Your task to perform on an android device: What's on my calendar tomorrow? Image 0: 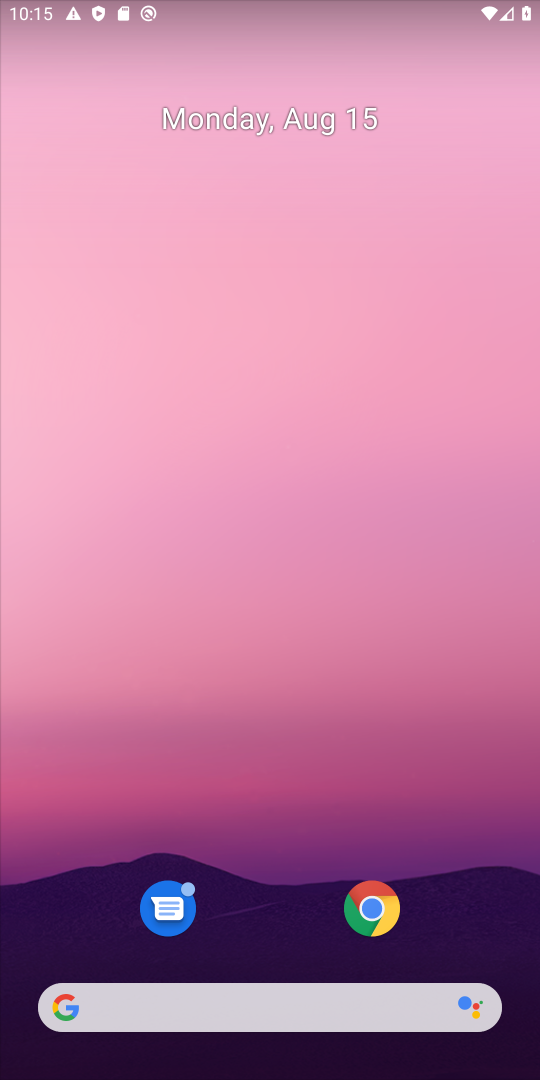
Step 0: click (244, 109)
Your task to perform on an android device: What's on my calendar tomorrow? Image 1: 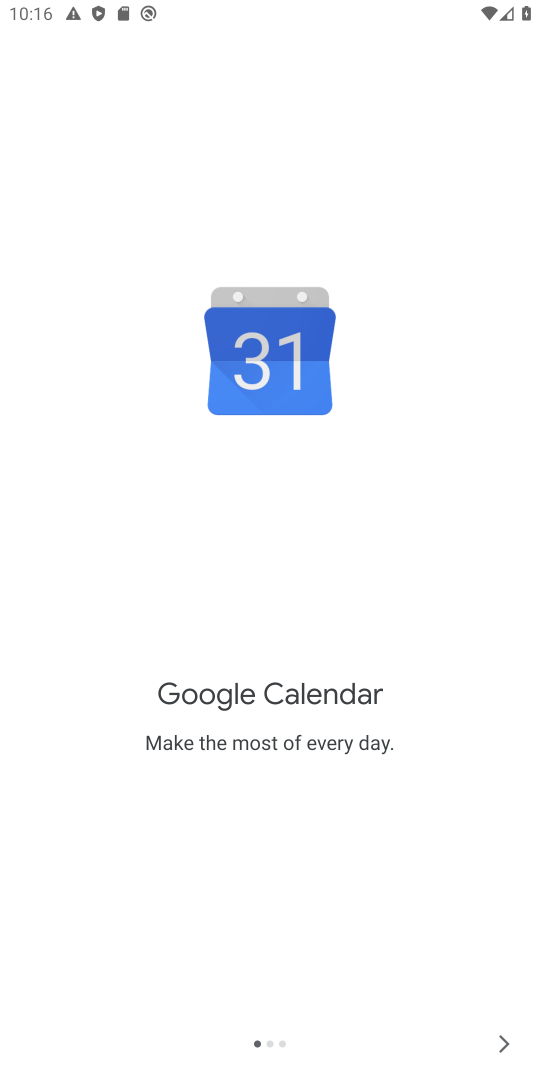
Step 1: click (502, 1045)
Your task to perform on an android device: What's on my calendar tomorrow? Image 2: 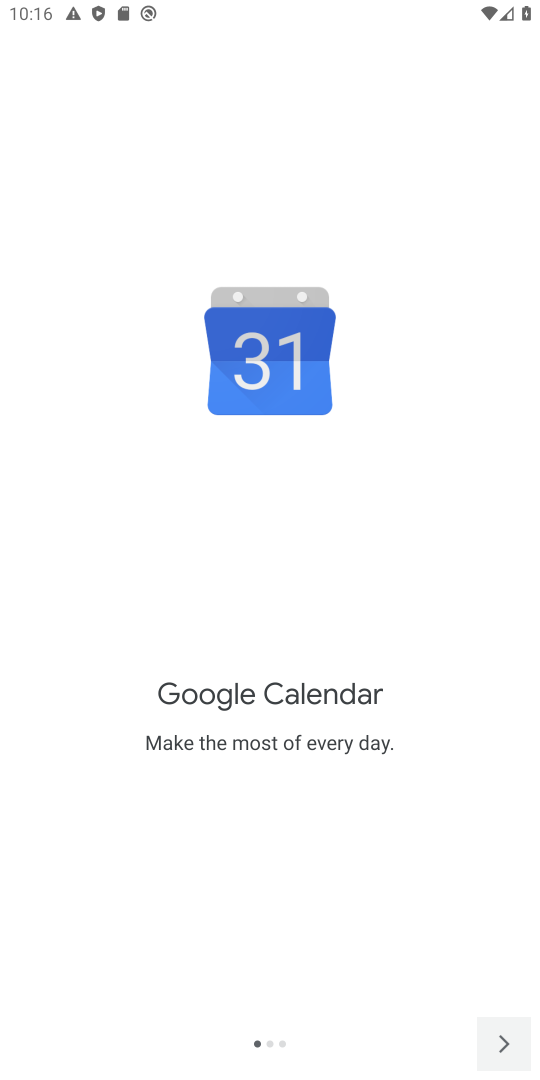
Step 2: click (502, 1045)
Your task to perform on an android device: What's on my calendar tomorrow? Image 3: 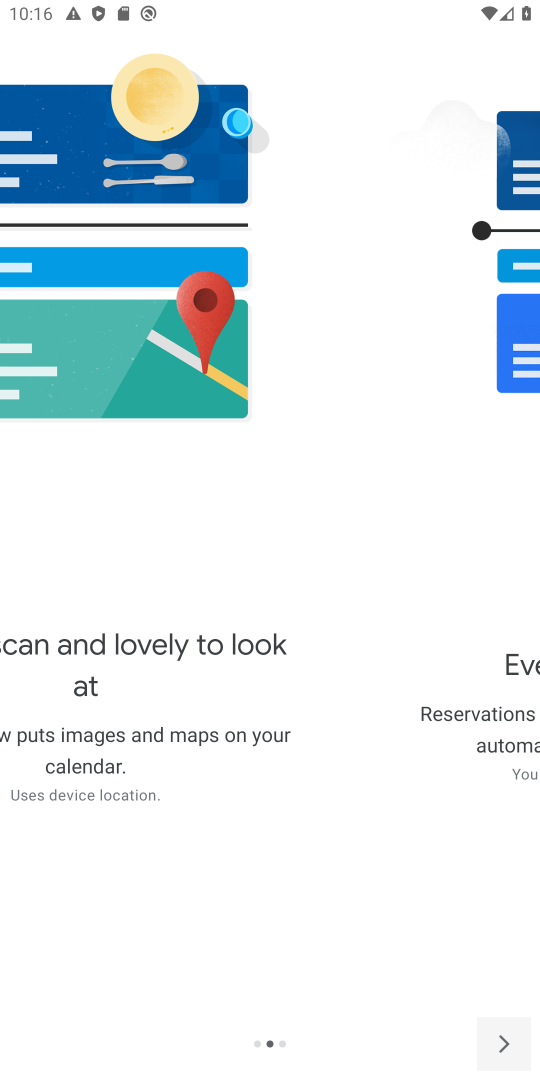
Step 3: click (502, 1045)
Your task to perform on an android device: What's on my calendar tomorrow? Image 4: 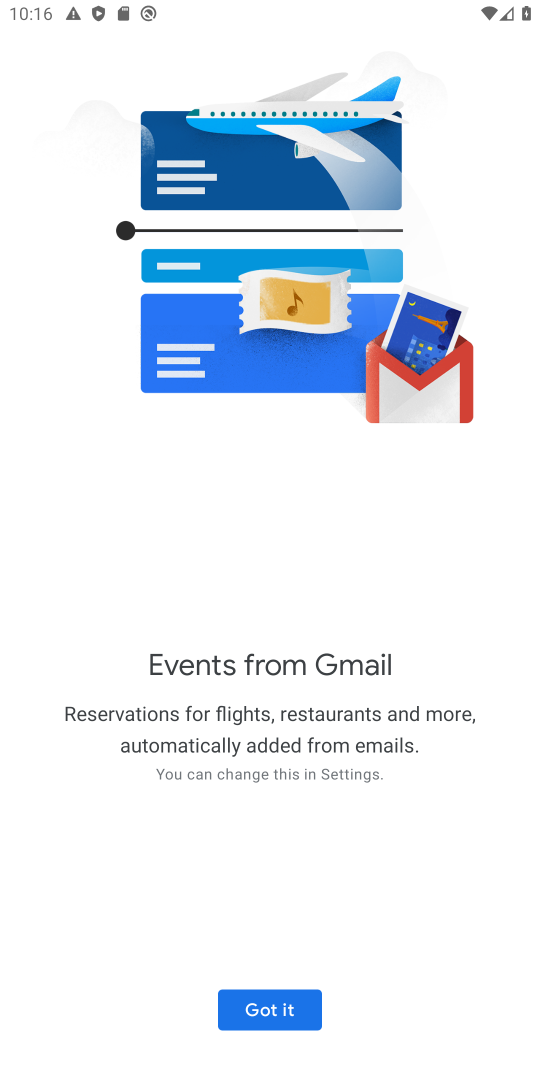
Step 4: click (502, 1045)
Your task to perform on an android device: What's on my calendar tomorrow? Image 5: 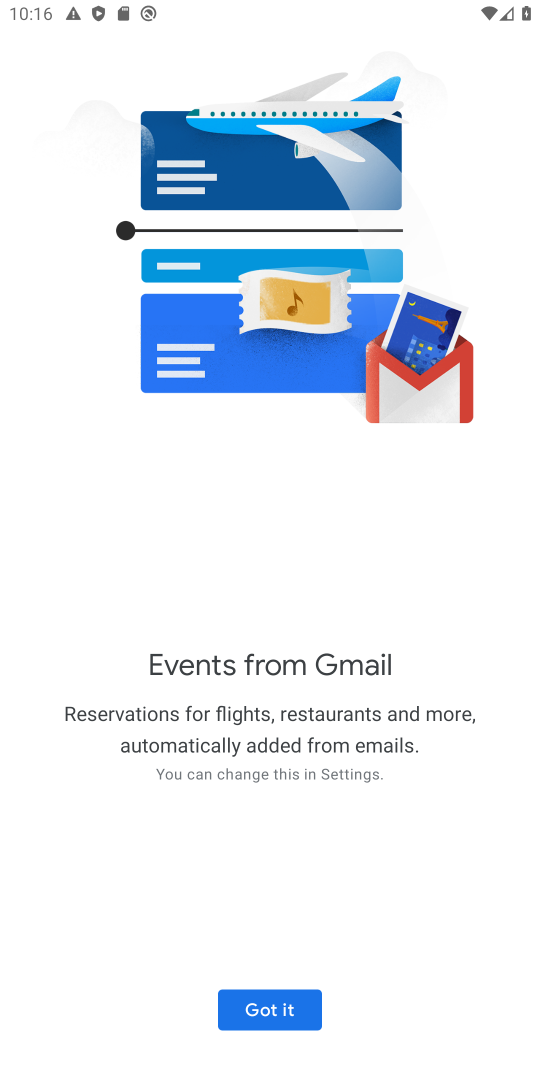
Step 5: click (249, 1011)
Your task to perform on an android device: What's on my calendar tomorrow? Image 6: 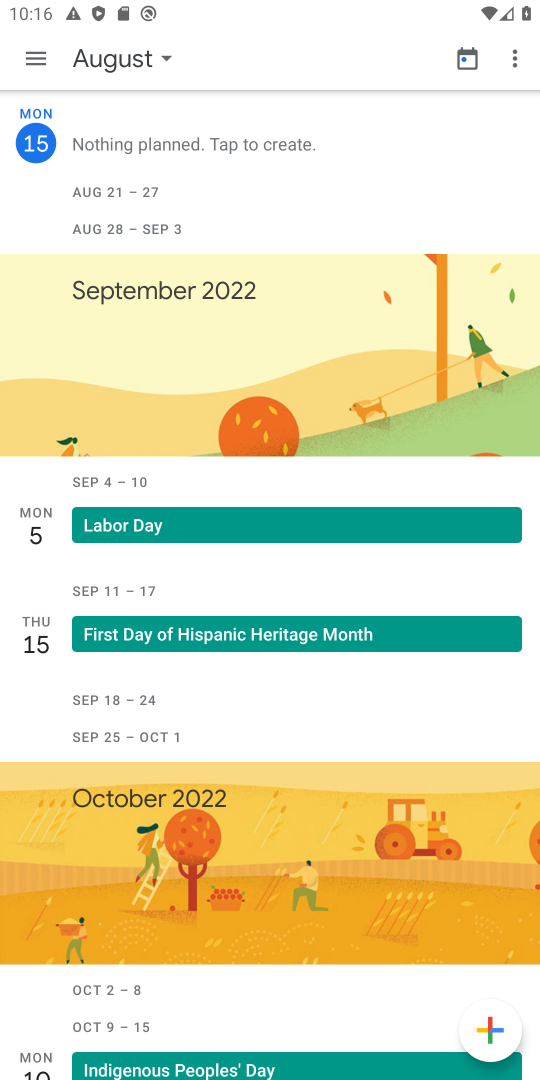
Step 6: click (140, 47)
Your task to perform on an android device: What's on my calendar tomorrow? Image 7: 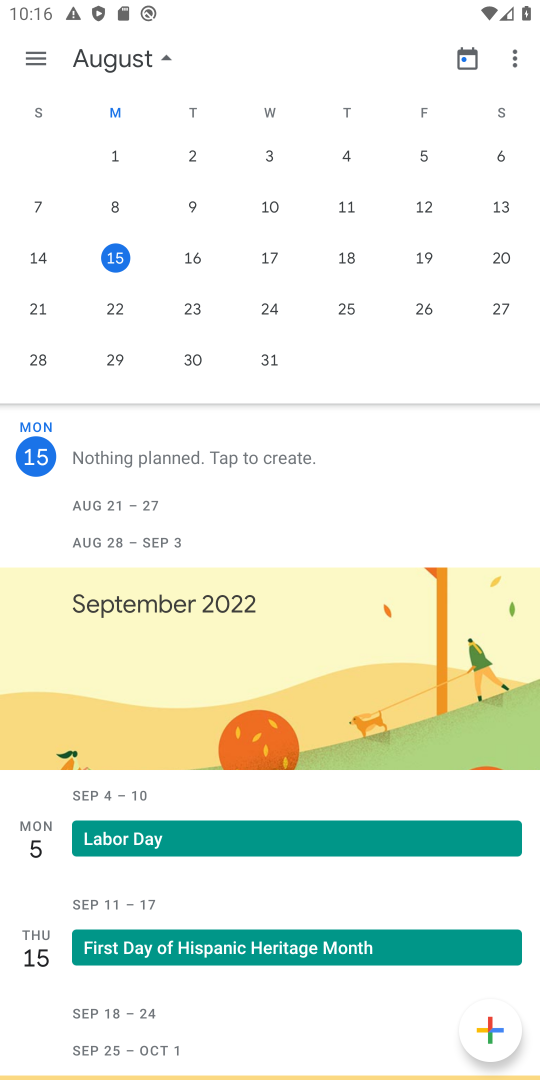
Step 7: click (196, 273)
Your task to perform on an android device: What's on my calendar tomorrow? Image 8: 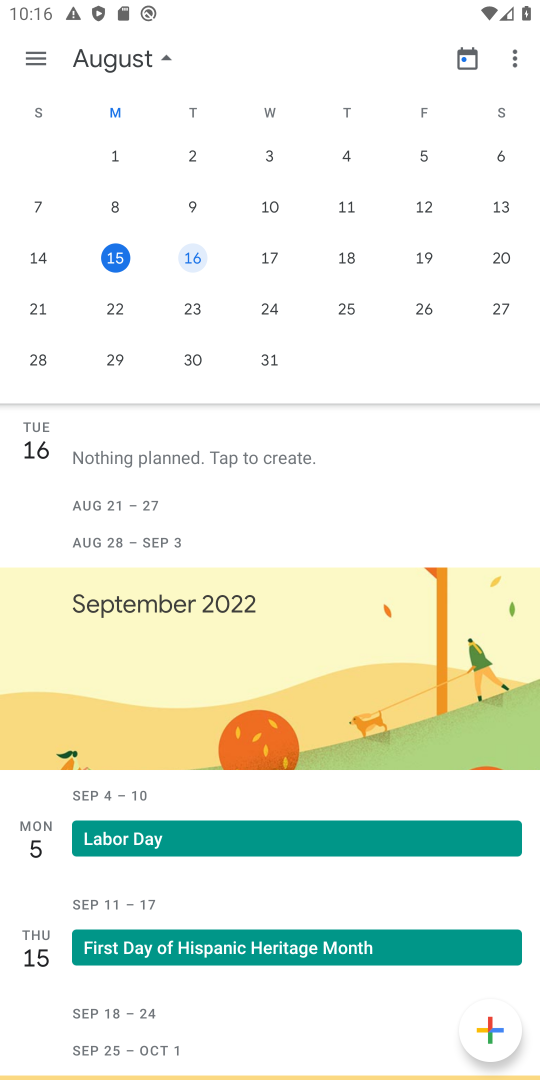
Step 8: task complete